Your task to perform on an android device: toggle show notifications on the lock screen Image 0: 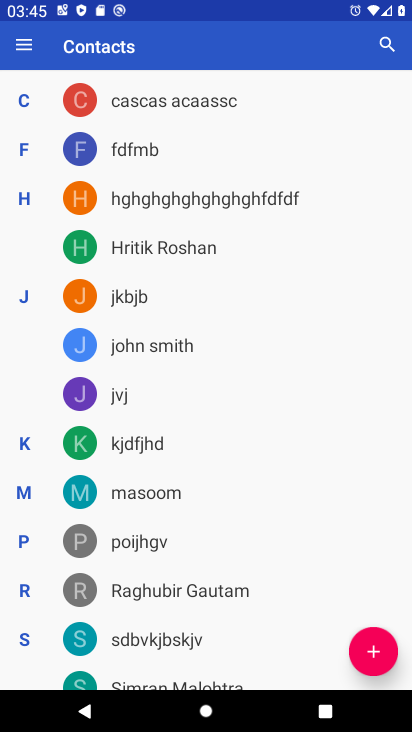
Step 0: press home button
Your task to perform on an android device: toggle show notifications on the lock screen Image 1: 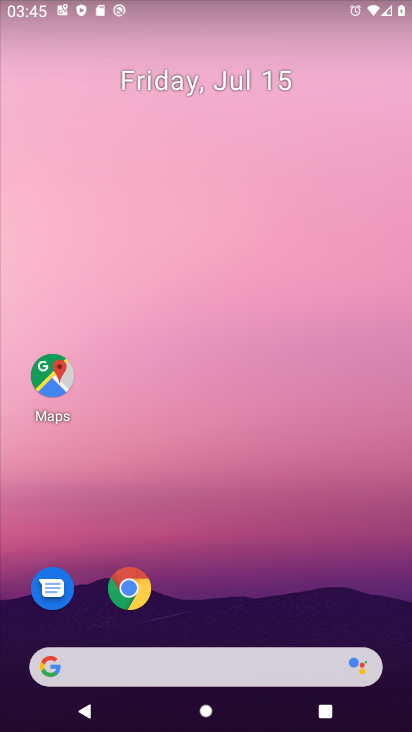
Step 1: drag from (170, 669) to (184, 70)
Your task to perform on an android device: toggle show notifications on the lock screen Image 2: 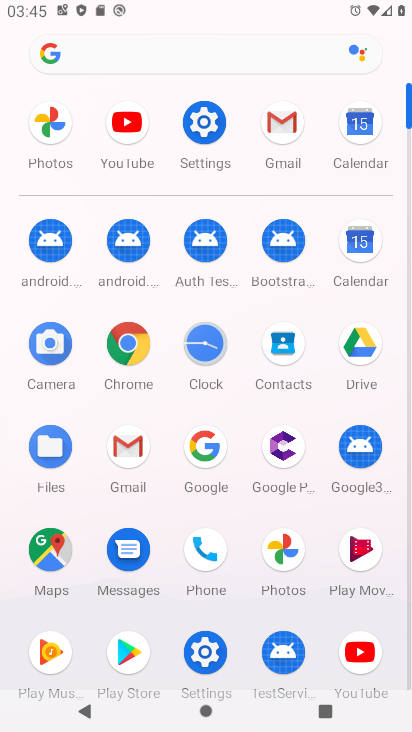
Step 2: click (204, 120)
Your task to perform on an android device: toggle show notifications on the lock screen Image 3: 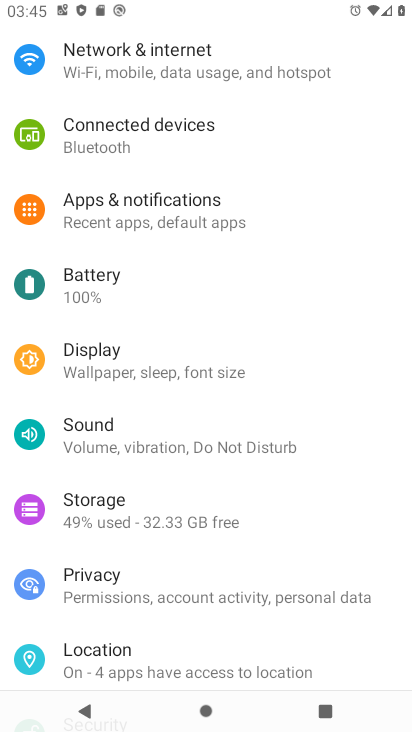
Step 3: click (139, 211)
Your task to perform on an android device: toggle show notifications on the lock screen Image 4: 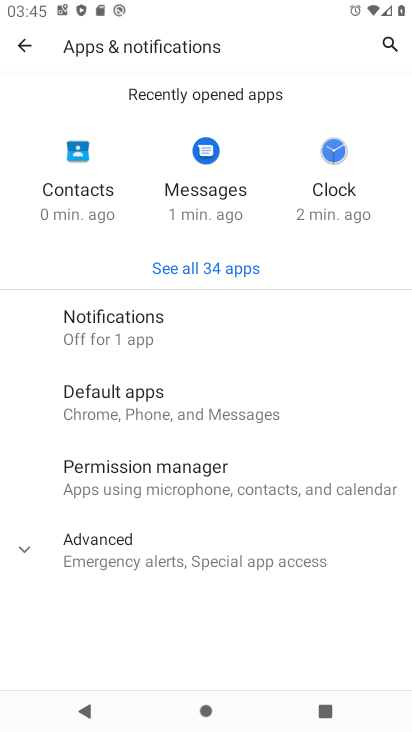
Step 4: click (122, 331)
Your task to perform on an android device: toggle show notifications on the lock screen Image 5: 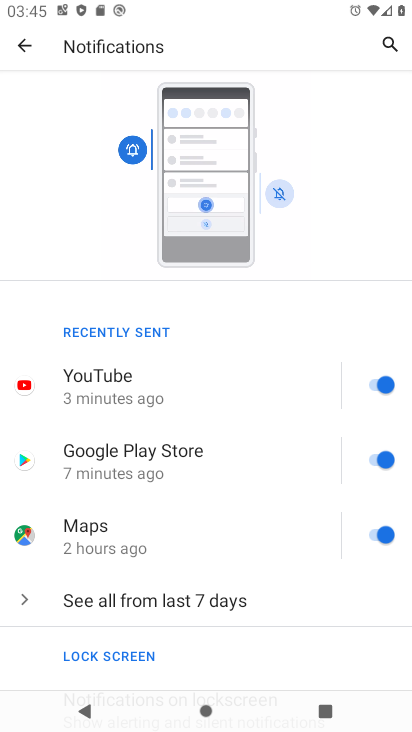
Step 5: drag from (149, 592) to (265, 357)
Your task to perform on an android device: toggle show notifications on the lock screen Image 6: 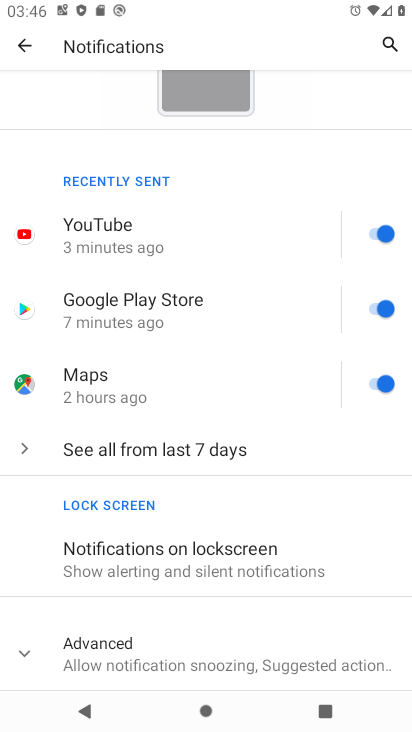
Step 6: click (247, 553)
Your task to perform on an android device: toggle show notifications on the lock screen Image 7: 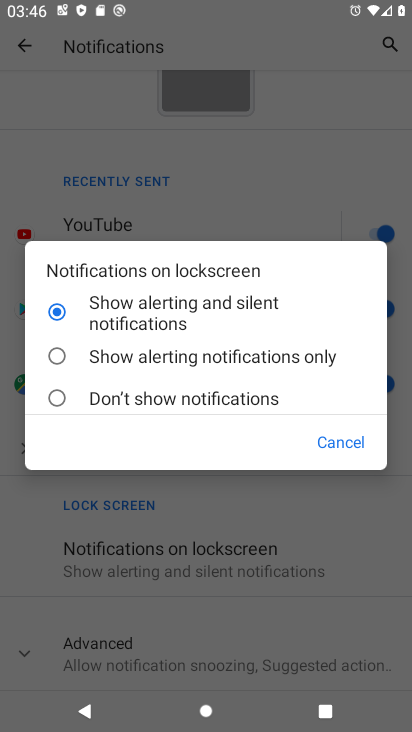
Step 7: click (52, 397)
Your task to perform on an android device: toggle show notifications on the lock screen Image 8: 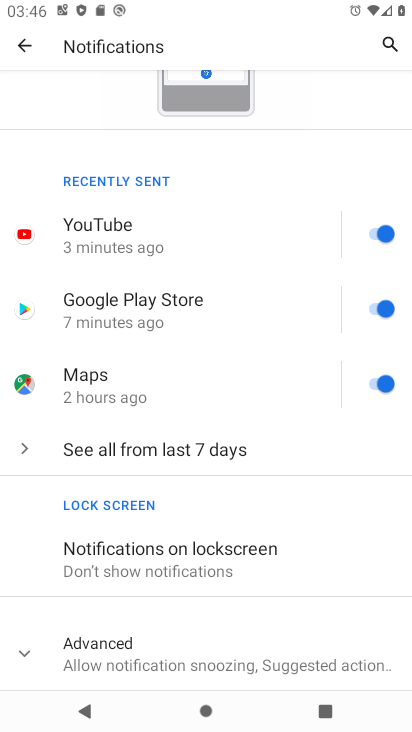
Step 8: task complete